Your task to perform on an android device: Open Google Chrome and click the shortcut for Amazon.com Image 0: 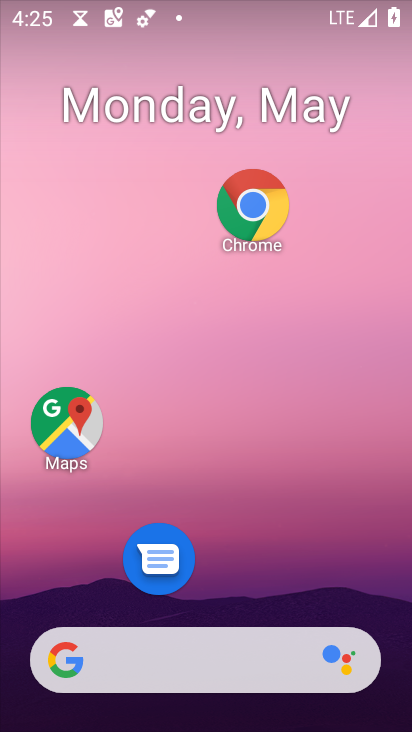
Step 0: drag from (227, 599) to (231, 172)
Your task to perform on an android device: Open Google Chrome and click the shortcut for Amazon.com Image 1: 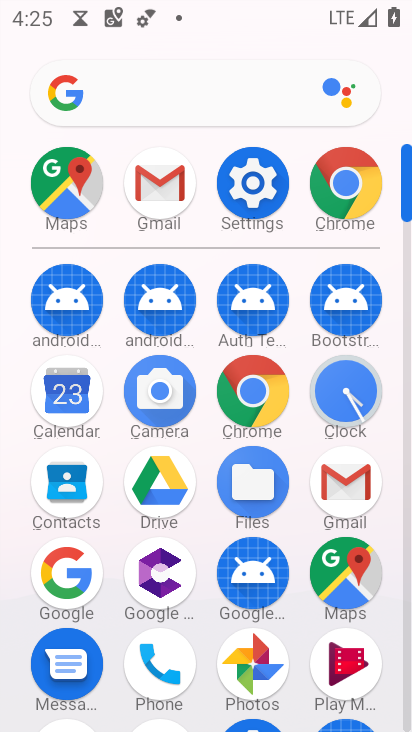
Step 1: click (344, 195)
Your task to perform on an android device: Open Google Chrome and click the shortcut for Amazon.com Image 2: 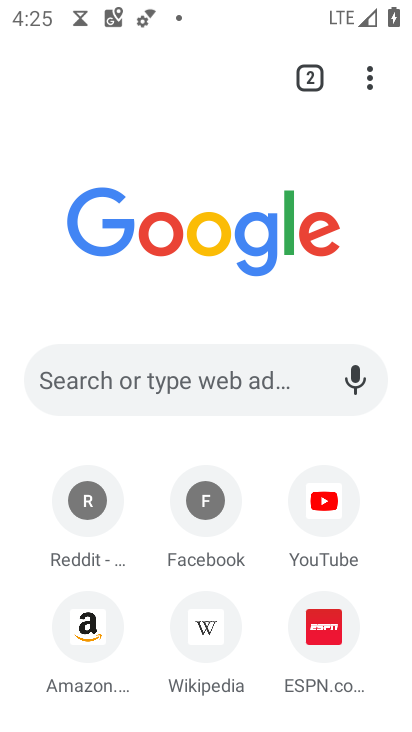
Step 2: click (91, 646)
Your task to perform on an android device: Open Google Chrome and click the shortcut for Amazon.com Image 3: 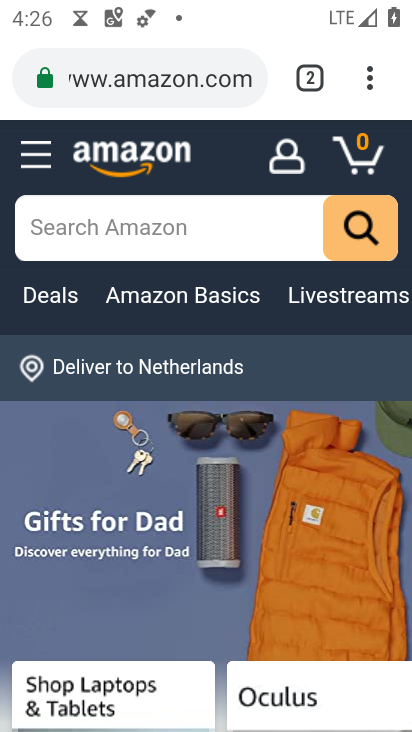
Step 3: task complete